Your task to perform on an android device: Go to CNN.com Image 0: 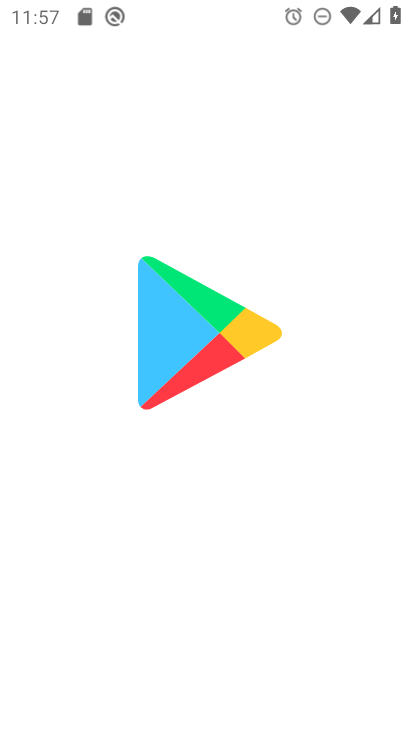
Step 0: drag from (261, 654) to (311, 442)
Your task to perform on an android device: Go to CNN.com Image 1: 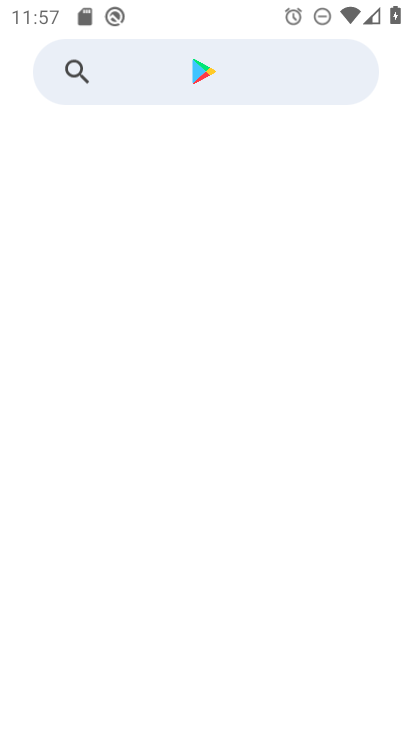
Step 1: press home button
Your task to perform on an android device: Go to CNN.com Image 2: 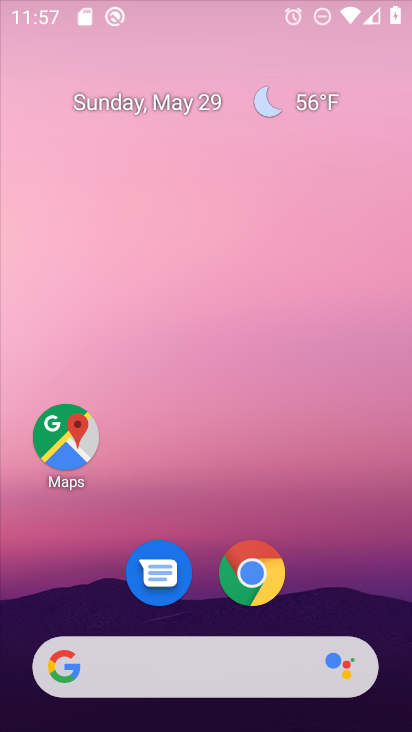
Step 2: drag from (273, 619) to (305, 18)
Your task to perform on an android device: Go to CNN.com Image 3: 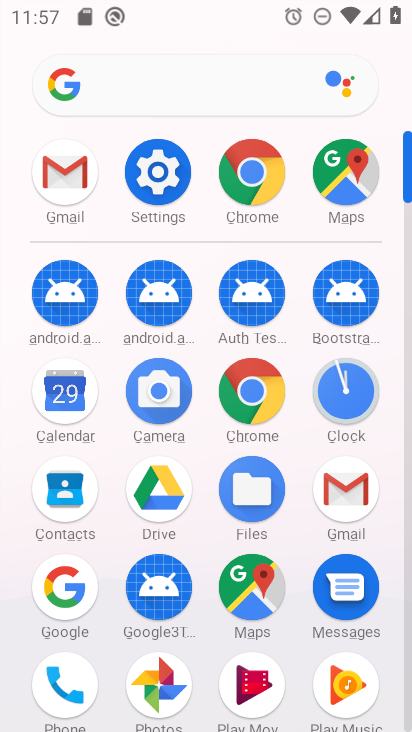
Step 3: click (266, 388)
Your task to perform on an android device: Go to CNN.com Image 4: 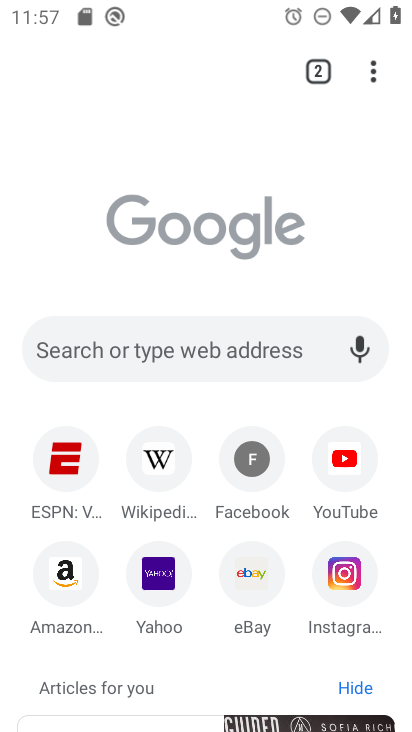
Step 4: click (198, 358)
Your task to perform on an android device: Go to CNN.com Image 5: 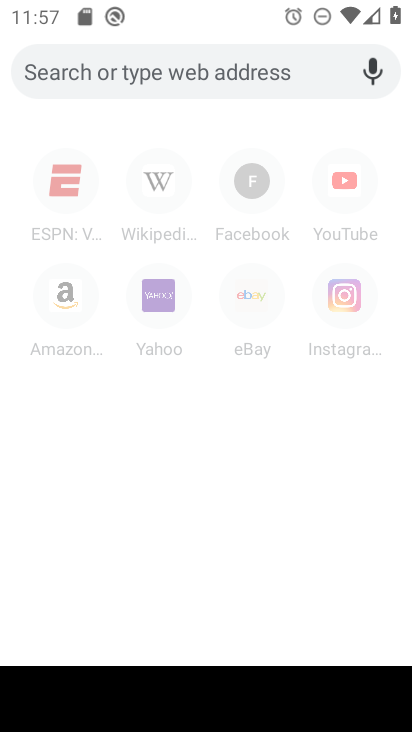
Step 5: type "cnn.com"
Your task to perform on an android device: Go to CNN.com Image 6: 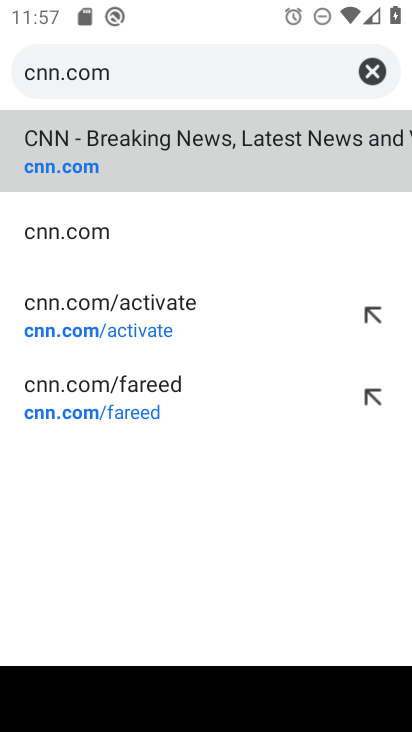
Step 6: click (320, 144)
Your task to perform on an android device: Go to CNN.com Image 7: 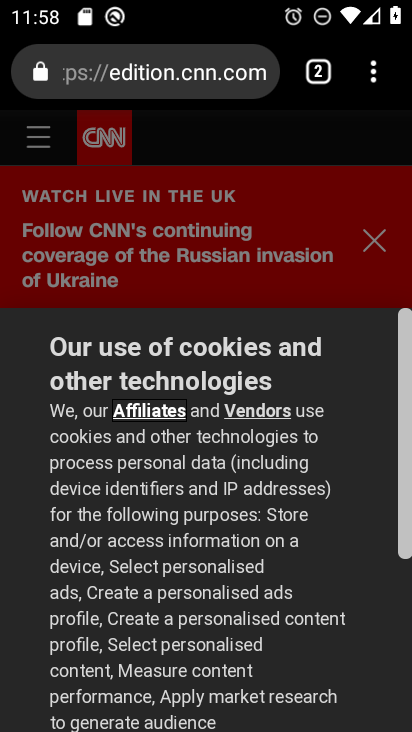
Step 7: task complete